Your task to perform on an android device: open app "Paramount+ | Peak Streaming" (install if not already installed) and go to login screen Image 0: 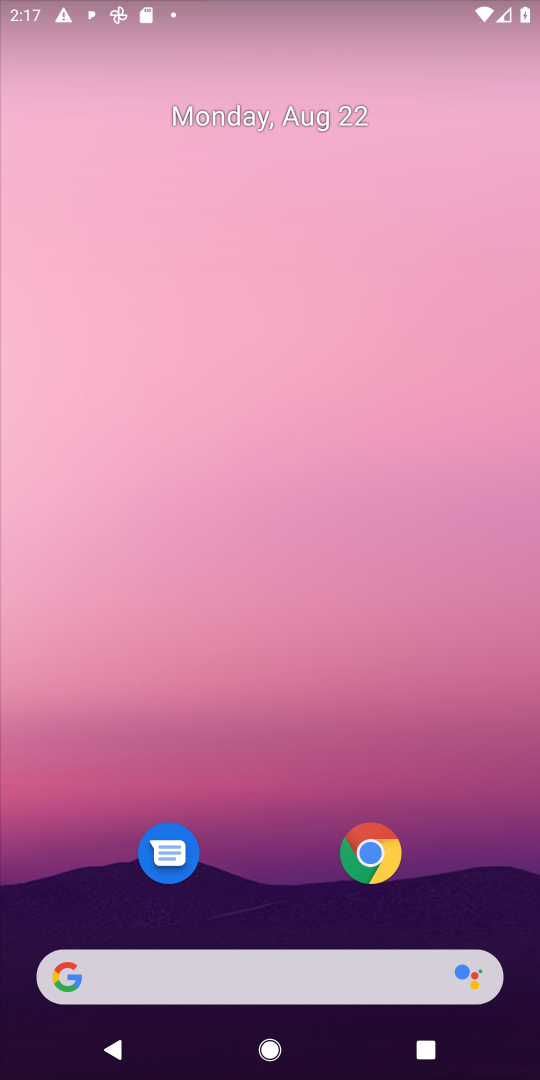
Step 0: drag from (290, 924) to (315, 235)
Your task to perform on an android device: open app "Paramount+ | Peak Streaming" (install if not already installed) and go to login screen Image 1: 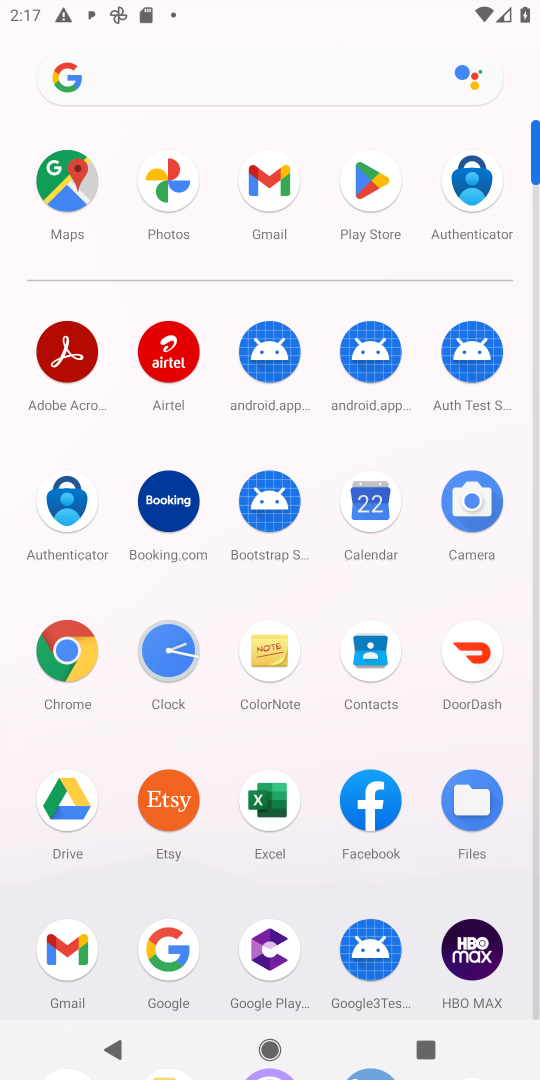
Step 1: click (359, 176)
Your task to perform on an android device: open app "Paramount+ | Peak Streaming" (install if not already installed) and go to login screen Image 2: 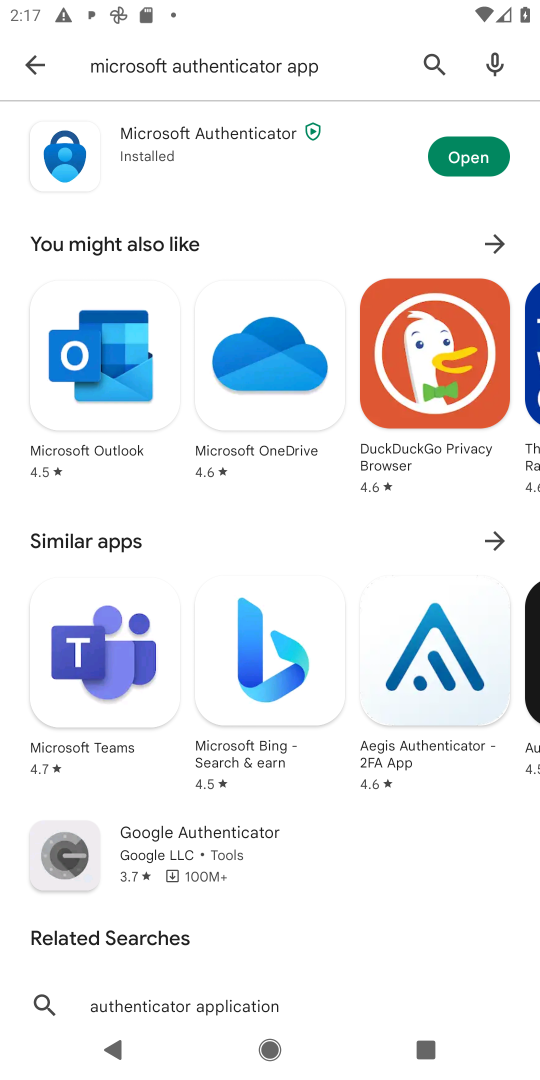
Step 2: click (34, 59)
Your task to perform on an android device: open app "Paramount+ | Peak Streaming" (install if not already installed) and go to login screen Image 3: 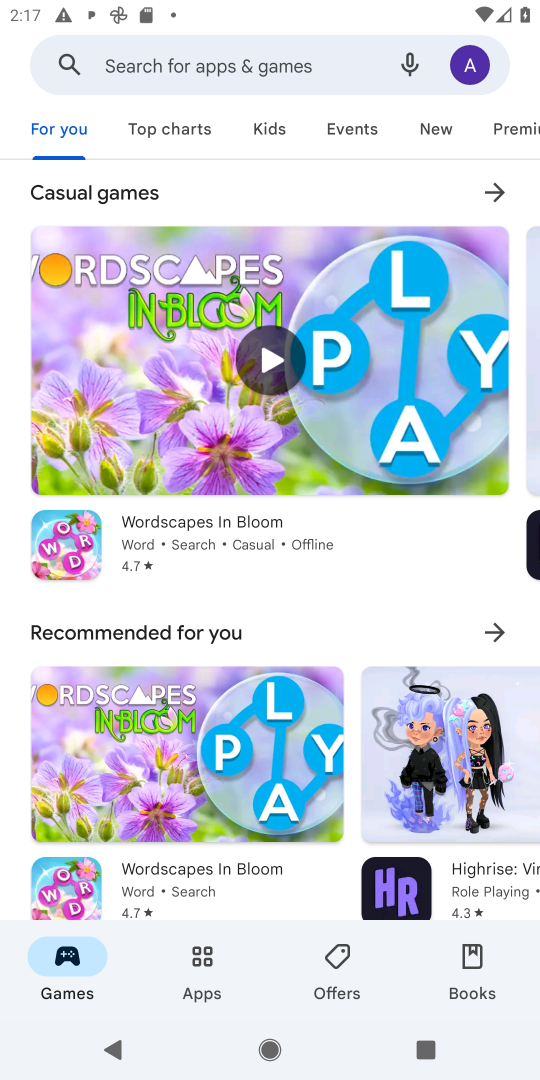
Step 3: click (187, 53)
Your task to perform on an android device: open app "Paramount+ | Peak Streaming" (install if not already installed) and go to login screen Image 4: 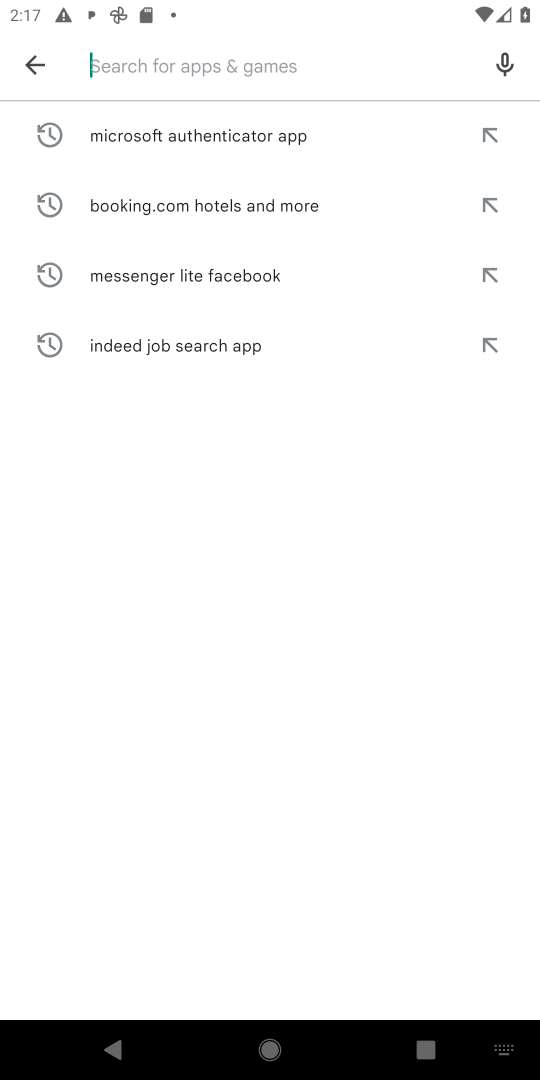
Step 4: type "Paramount+ "
Your task to perform on an android device: open app "Paramount+ | Peak Streaming" (install if not already installed) and go to login screen Image 5: 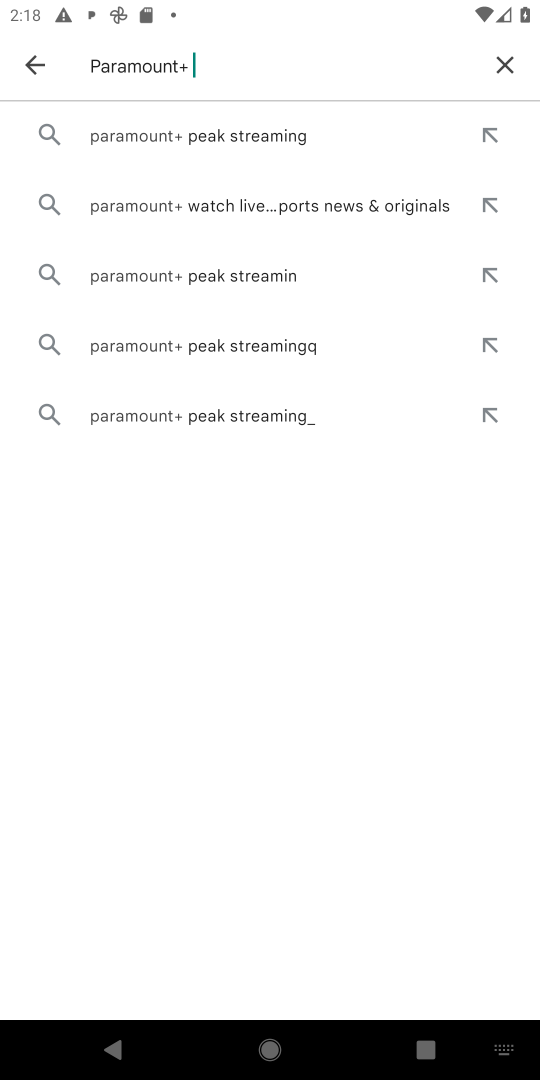
Step 5: click (227, 137)
Your task to perform on an android device: open app "Paramount+ | Peak Streaming" (install if not already installed) and go to login screen Image 6: 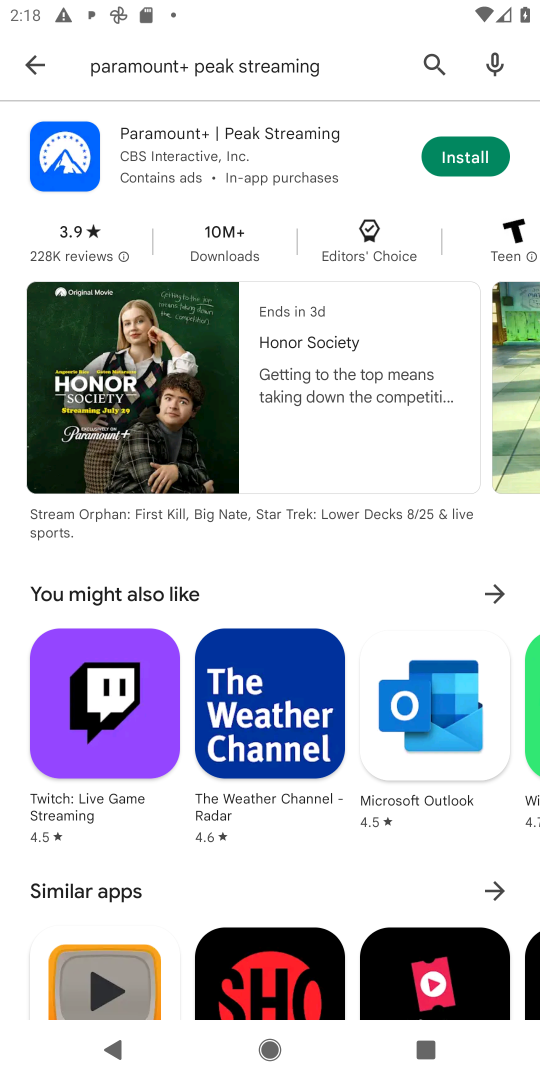
Step 6: click (458, 154)
Your task to perform on an android device: open app "Paramount+ | Peak Streaming" (install if not already installed) and go to login screen Image 7: 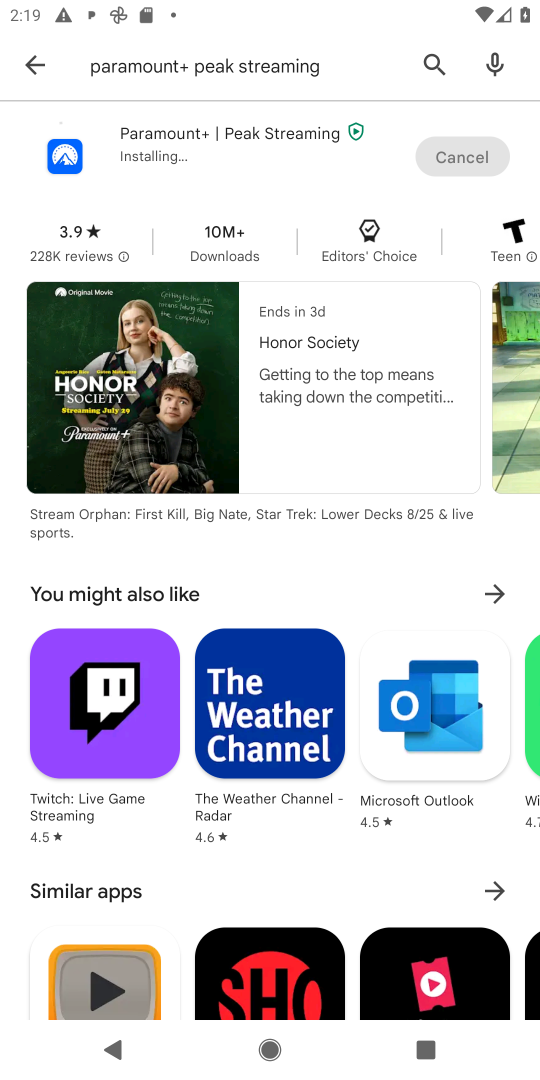
Step 7: task complete